Your task to perform on an android device: What's the weather? Image 0: 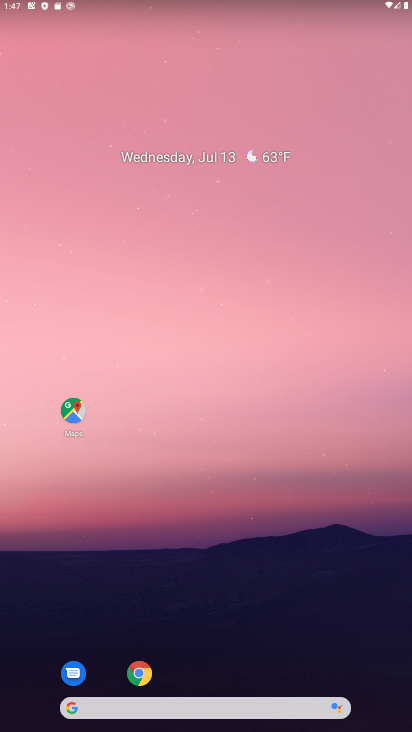
Step 0: drag from (240, 617) to (264, 235)
Your task to perform on an android device: What's the weather? Image 1: 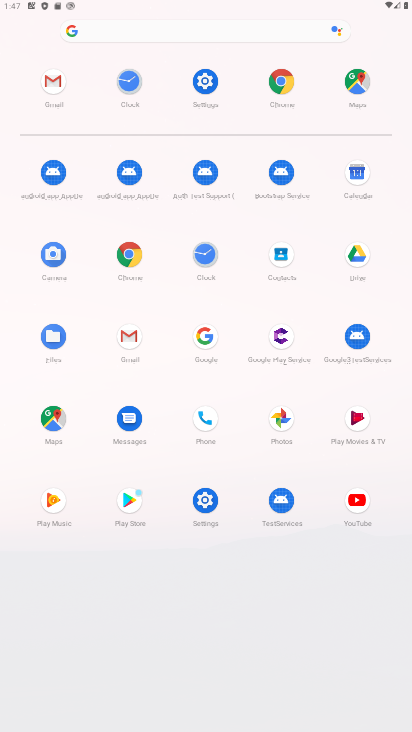
Step 1: click (268, 78)
Your task to perform on an android device: What's the weather? Image 2: 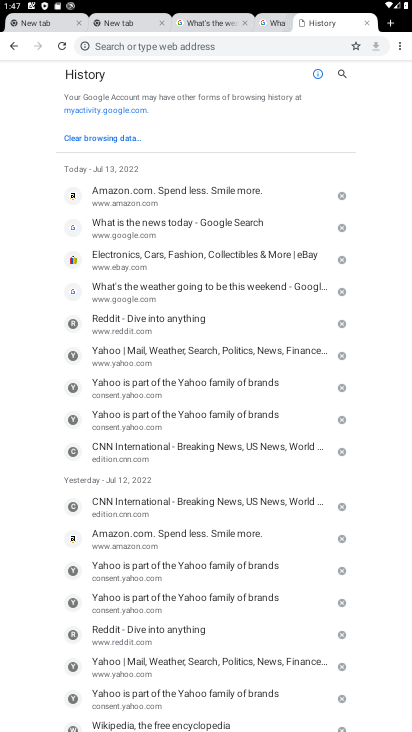
Step 2: click (395, 43)
Your task to perform on an android device: What's the weather? Image 3: 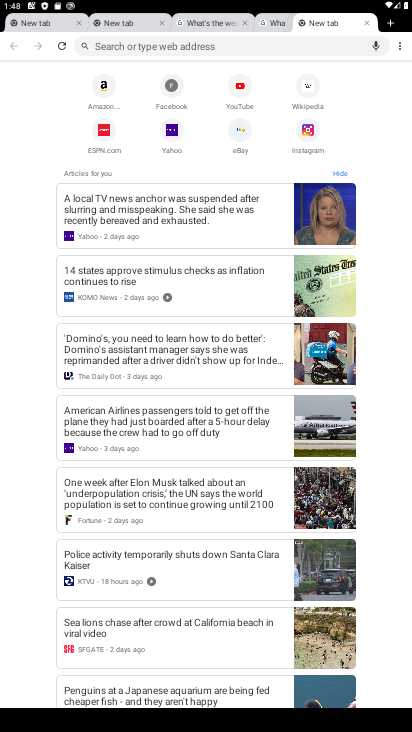
Step 3: click (178, 35)
Your task to perform on an android device: What's the weather? Image 4: 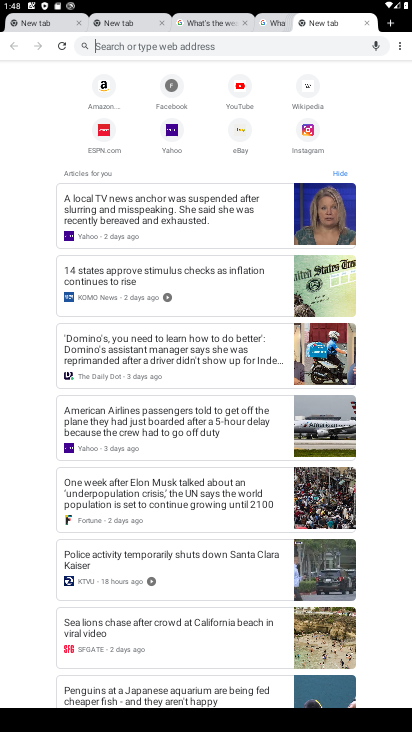
Step 4: type "What's the weather "
Your task to perform on an android device: What's the weather? Image 5: 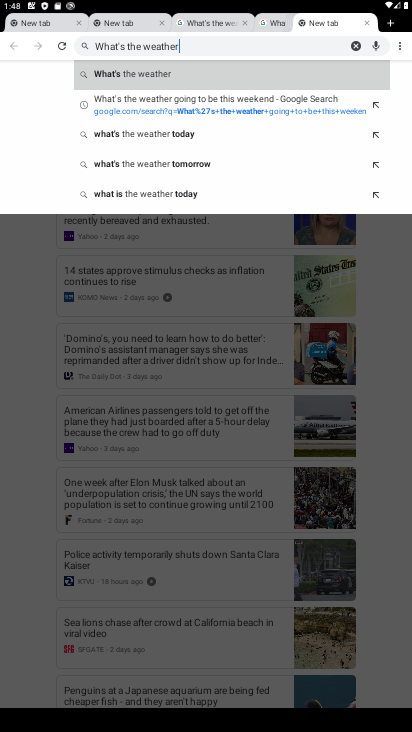
Step 5: click (207, 79)
Your task to perform on an android device: What's the weather? Image 6: 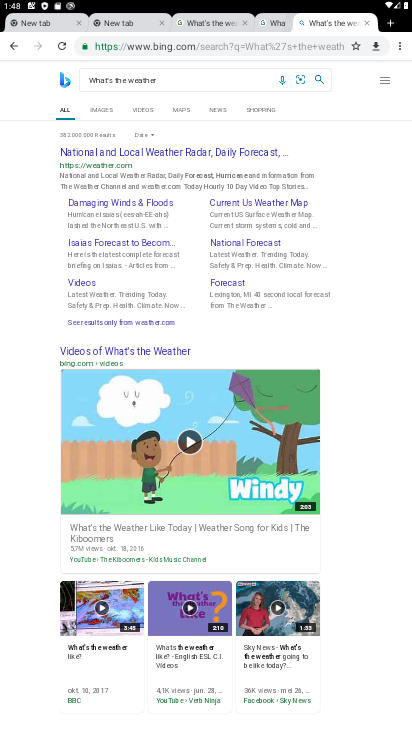
Step 6: task complete